Your task to perform on an android device: turn off improve location accuracy Image 0: 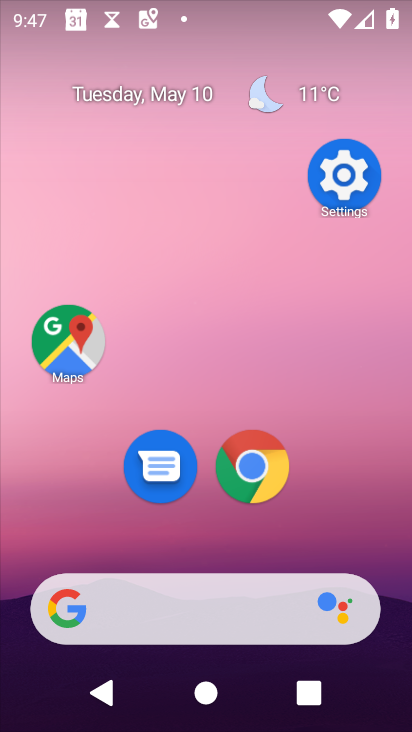
Step 0: drag from (223, 547) to (210, 176)
Your task to perform on an android device: turn off improve location accuracy Image 1: 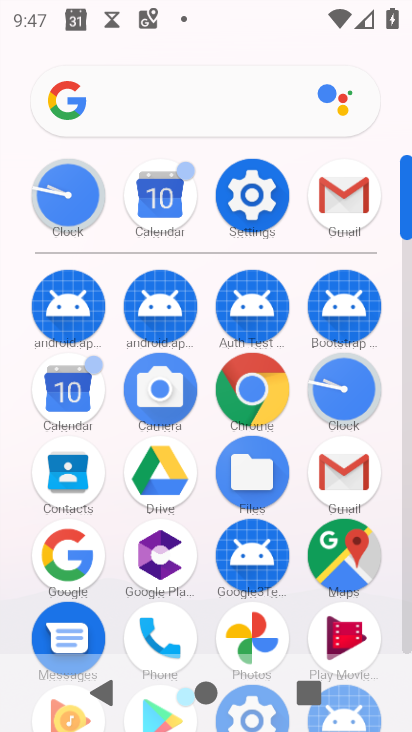
Step 1: click (237, 198)
Your task to perform on an android device: turn off improve location accuracy Image 2: 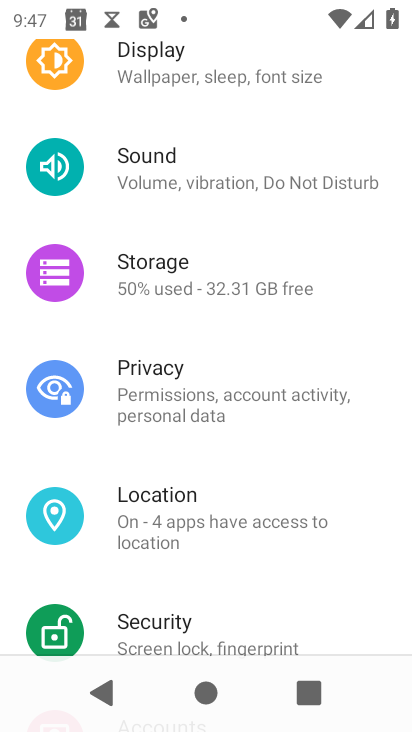
Step 2: click (172, 514)
Your task to perform on an android device: turn off improve location accuracy Image 3: 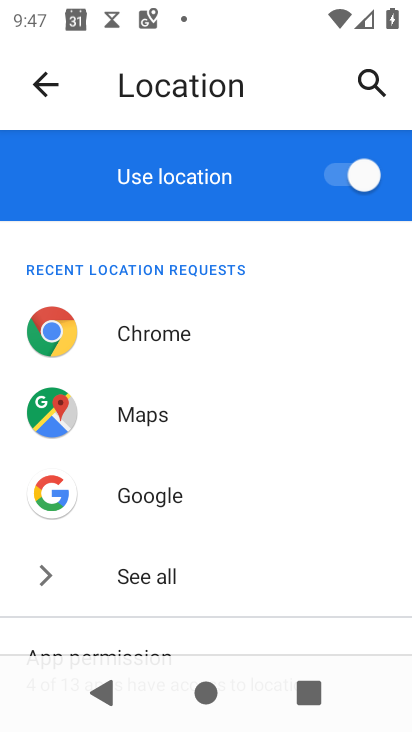
Step 3: drag from (198, 574) to (184, 395)
Your task to perform on an android device: turn off improve location accuracy Image 4: 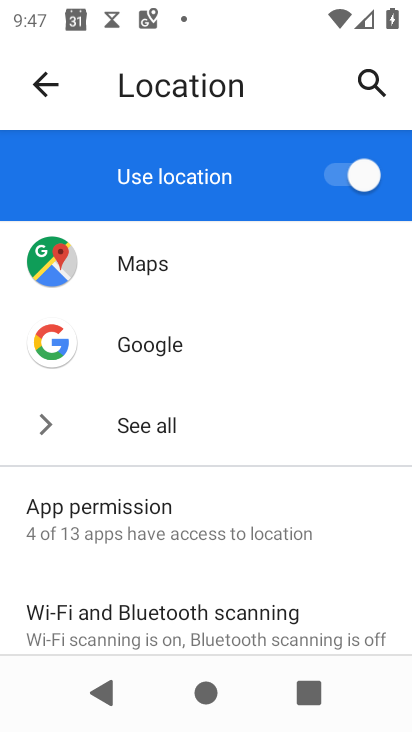
Step 4: drag from (168, 580) to (156, 444)
Your task to perform on an android device: turn off improve location accuracy Image 5: 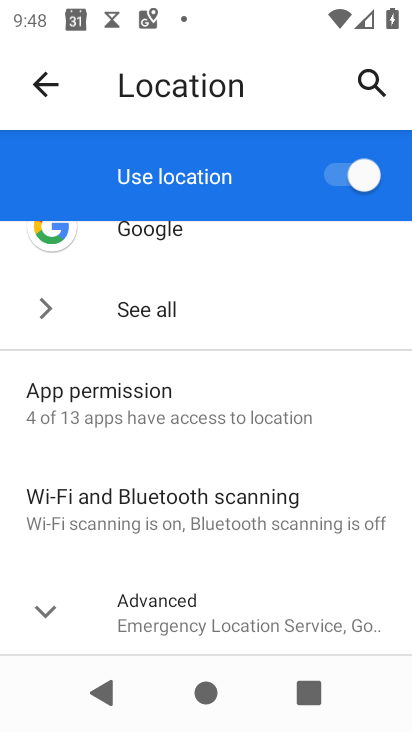
Step 5: click (197, 600)
Your task to perform on an android device: turn off improve location accuracy Image 6: 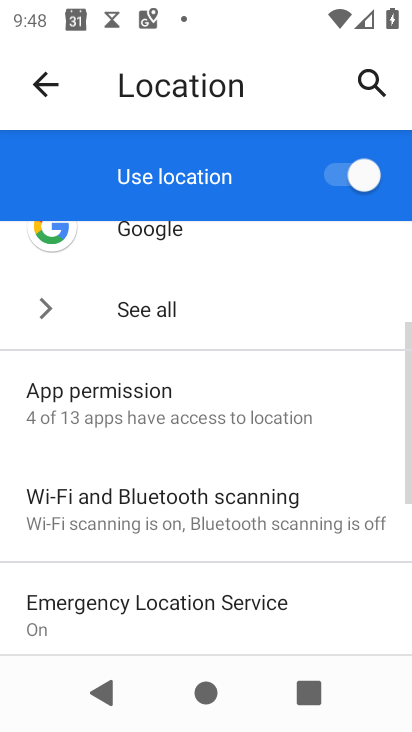
Step 6: drag from (197, 599) to (181, 416)
Your task to perform on an android device: turn off improve location accuracy Image 7: 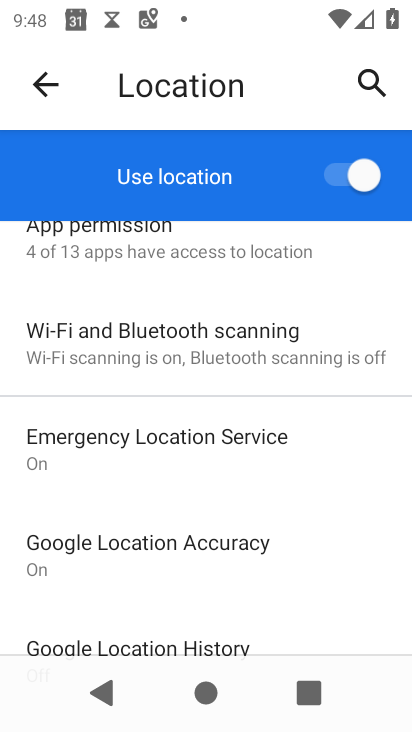
Step 7: drag from (197, 577) to (173, 436)
Your task to perform on an android device: turn off improve location accuracy Image 8: 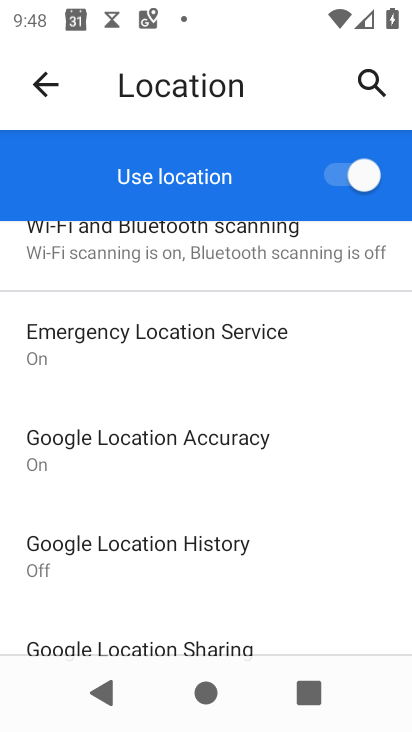
Step 8: drag from (229, 589) to (230, 440)
Your task to perform on an android device: turn off improve location accuracy Image 9: 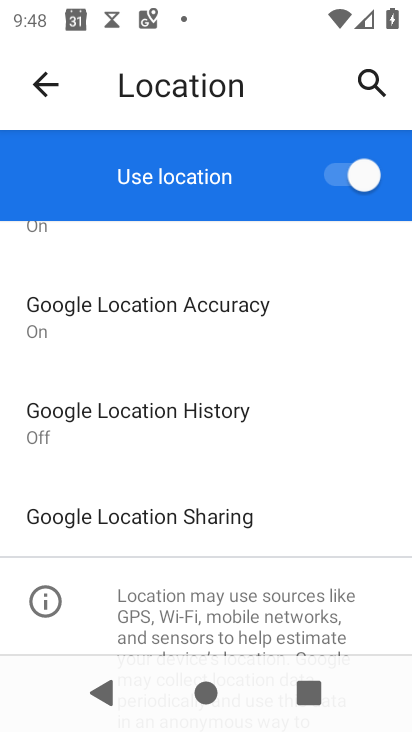
Step 9: click (229, 311)
Your task to perform on an android device: turn off improve location accuracy Image 10: 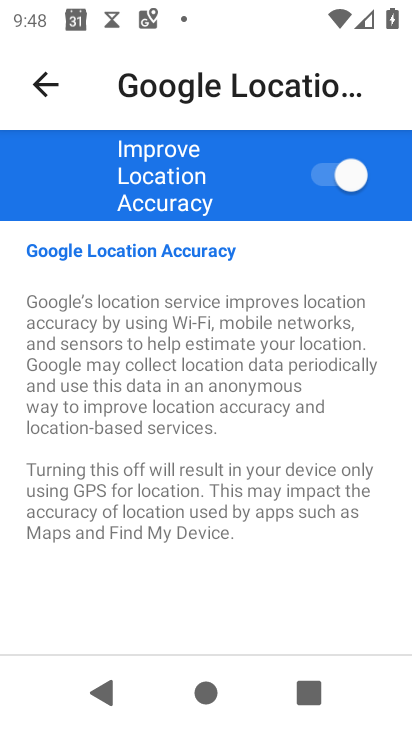
Step 10: click (328, 181)
Your task to perform on an android device: turn off improve location accuracy Image 11: 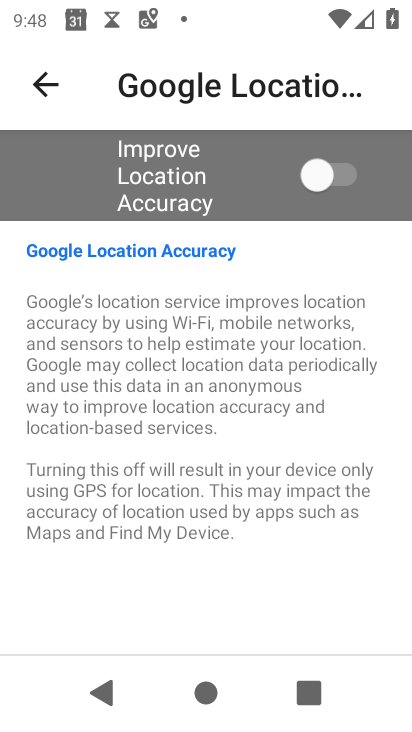
Step 11: task complete